Your task to perform on an android device: Is it going to rain today? Image 0: 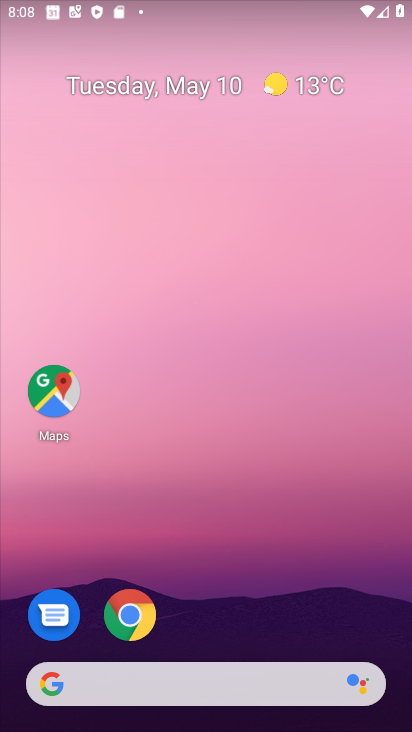
Step 0: click (218, 678)
Your task to perform on an android device: Is it going to rain today? Image 1: 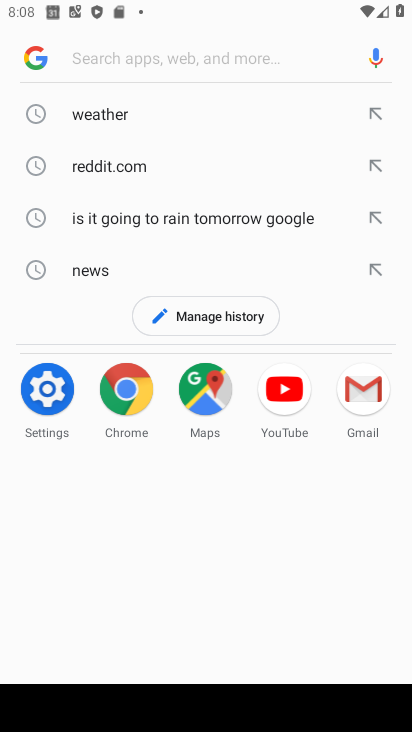
Step 1: click (107, 115)
Your task to perform on an android device: Is it going to rain today? Image 2: 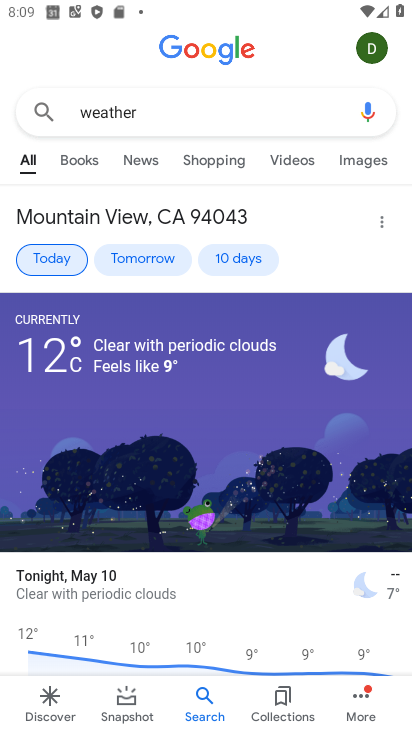
Step 2: task complete